Your task to perform on an android device: Go to ESPN.com Image 0: 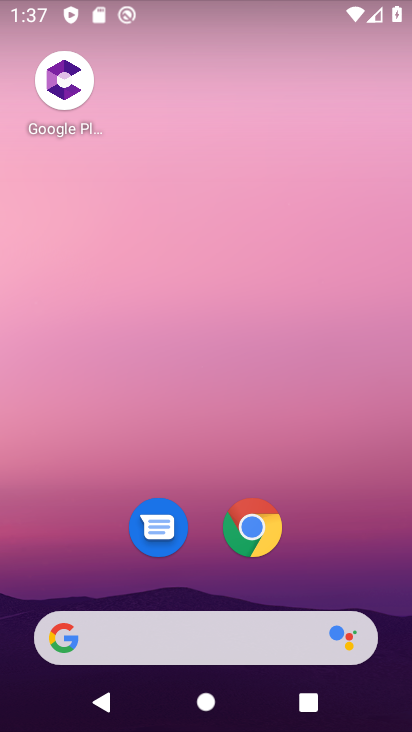
Step 0: click (248, 532)
Your task to perform on an android device: Go to ESPN.com Image 1: 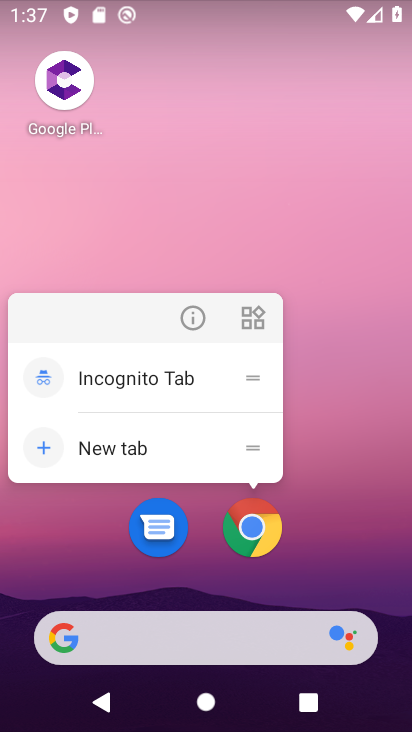
Step 1: click (248, 533)
Your task to perform on an android device: Go to ESPN.com Image 2: 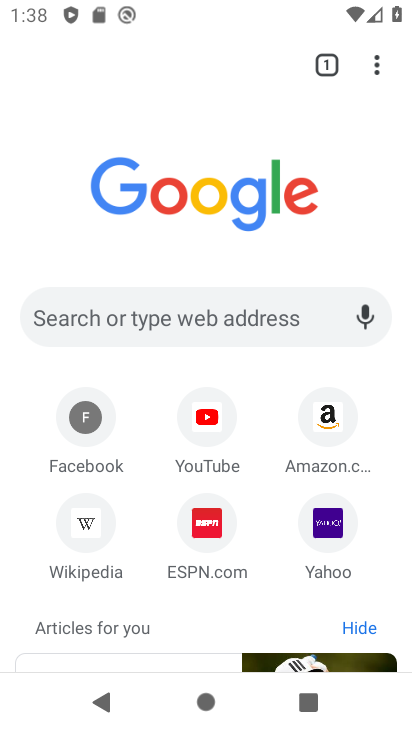
Step 2: click (190, 527)
Your task to perform on an android device: Go to ESPN.com Image 3: 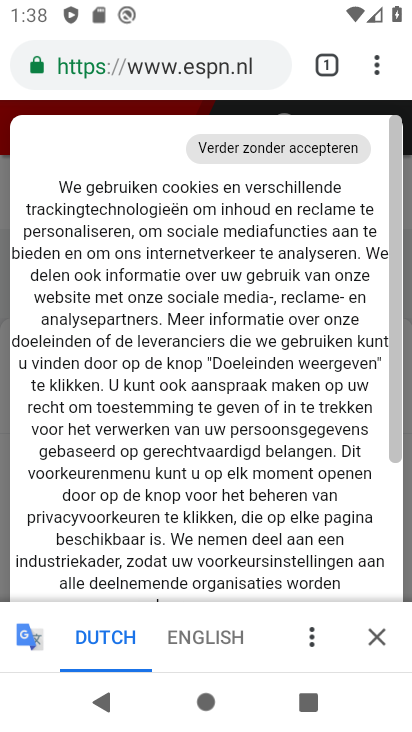
Step 3: drag from (200, 528) to (268, 227)
Your task to perform on an android device: Go to ESPN.com Image 4: 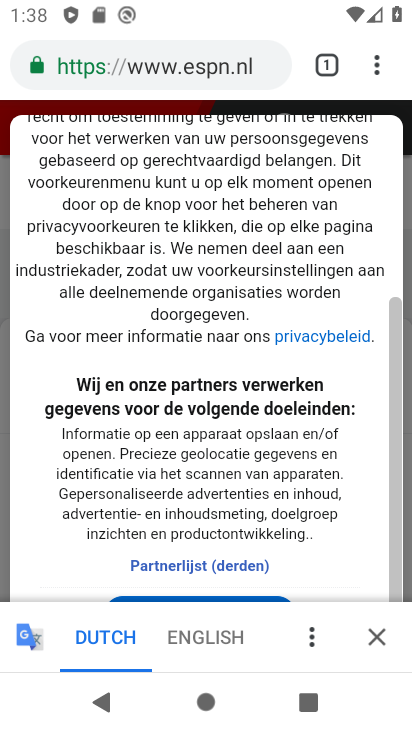
Step 4: click (219, 627)
Your task to perform on an android device: Go to ESPN.com Image 5: 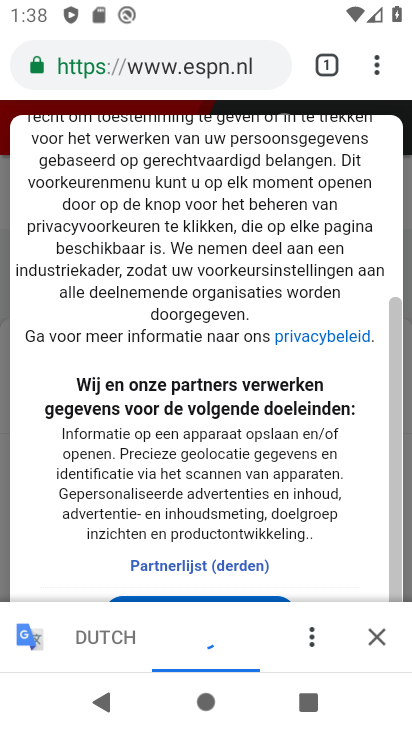
Step 5: drag from (216, 557) to (278, 257)
Your task to perform on an android device: Go to ESPN.com Image 6: 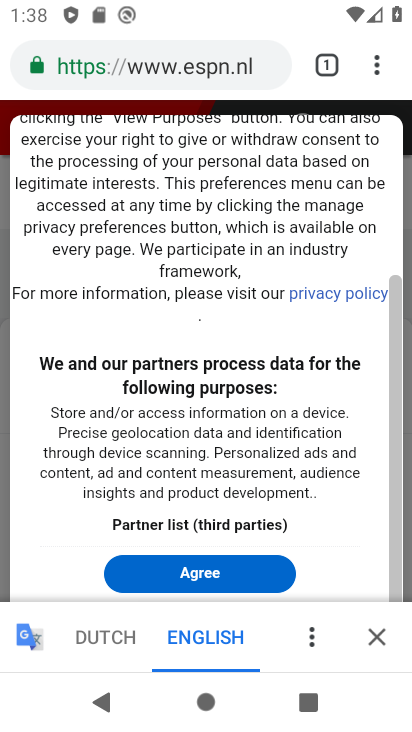
Step 6: click (237, 572)
Your task to perform on an android device: Go to ESPN.com Image 7: 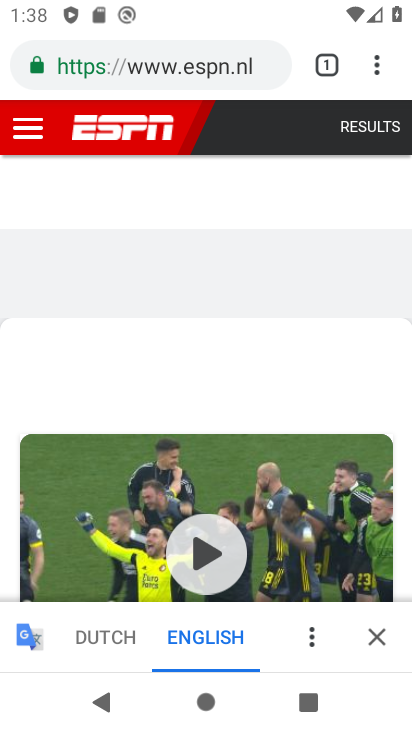
Step 7: click (372, 636)
Your task to perform on an android device: Go to ESPN.com Image 8: 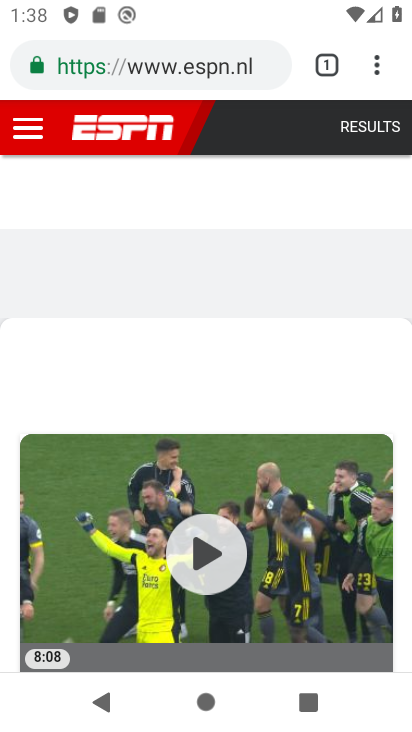
Step 8: task complete